Your task to perform on an android device: open app "ColorNote Notepad Notes" (install if not already installed) Image 0: 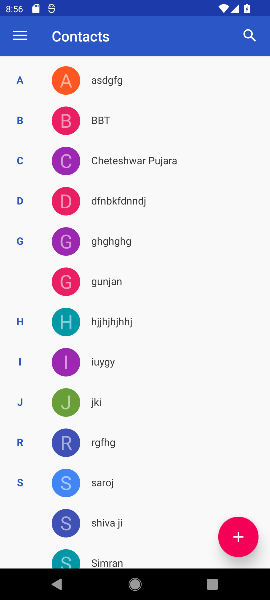
Step 0: press home button
Your task to perform on an android device: open app "ColorNote Notepad Notes" (install if not already installed) Image 1: 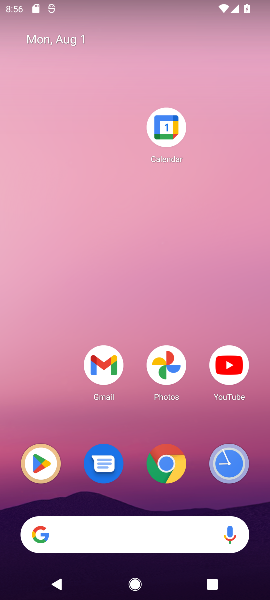
Step 1: task complete